Your task to perform on an android device: install app "Firefox Browser" Image 0: 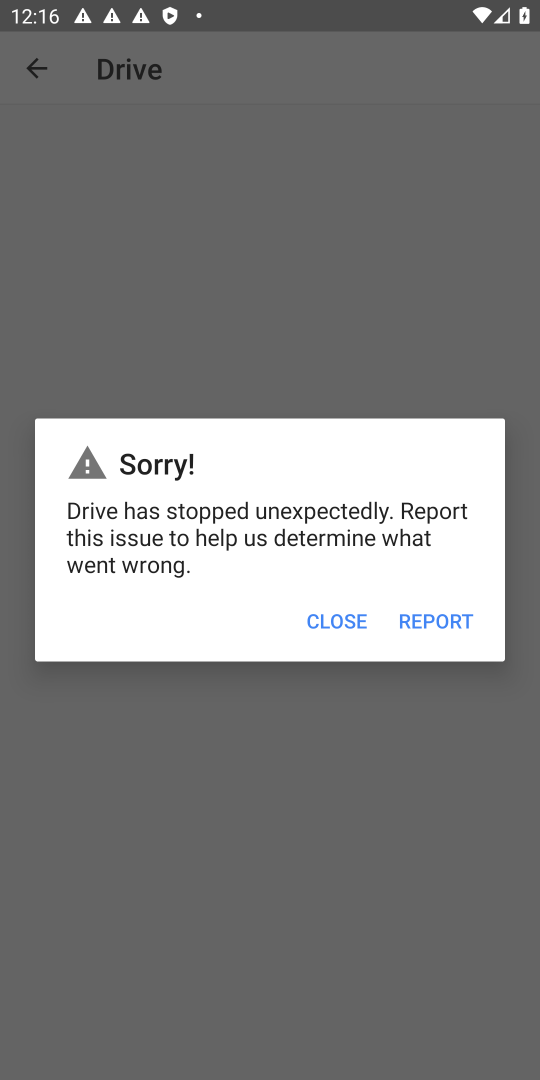
Step 0: click (325, 615)
Your task to perform on an android device: install app "Firefox Browser" Image 1: 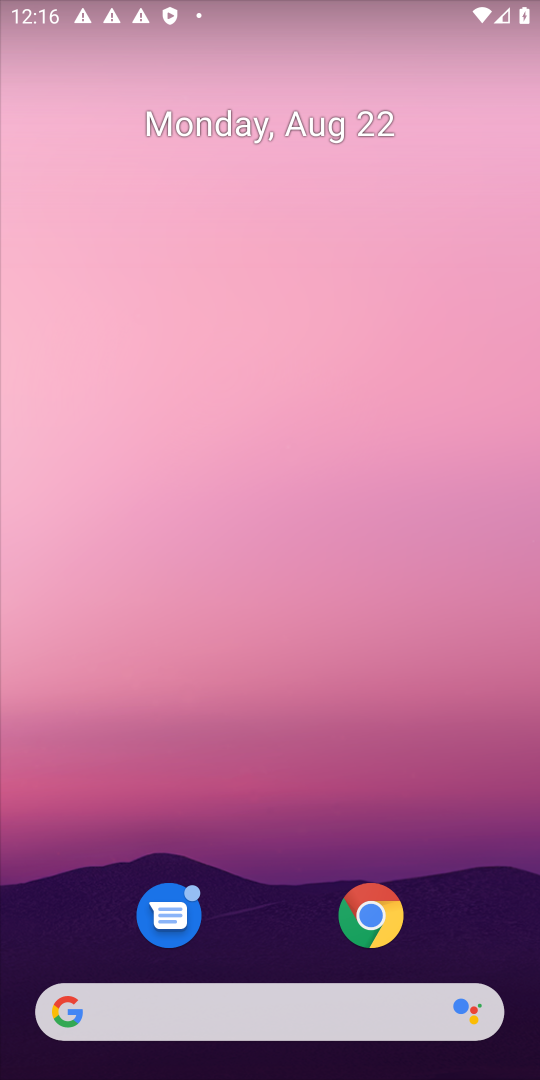
Step 1: drag from (319, 963) to (228, 3)
Your task to perform on an android device: install app "Firefox Browser" Image 2: 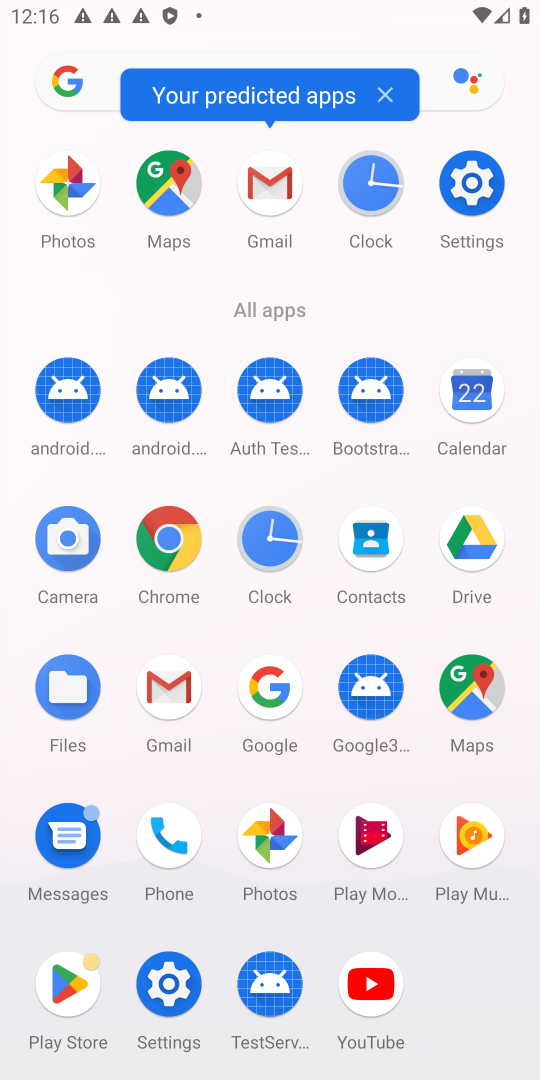
Step 2: click (65, 985)
Your task to perform on an android device: install app "Firefox Browser" Image 3: 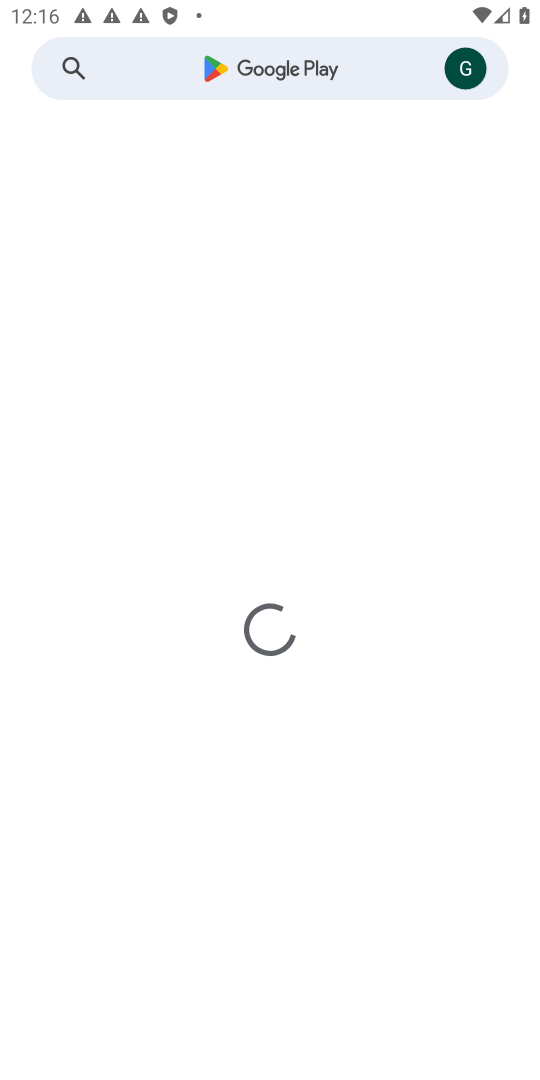
Step 3: click (210, 85)
Your task to perform on an android device: install app "Firefox Browser" Image 4: 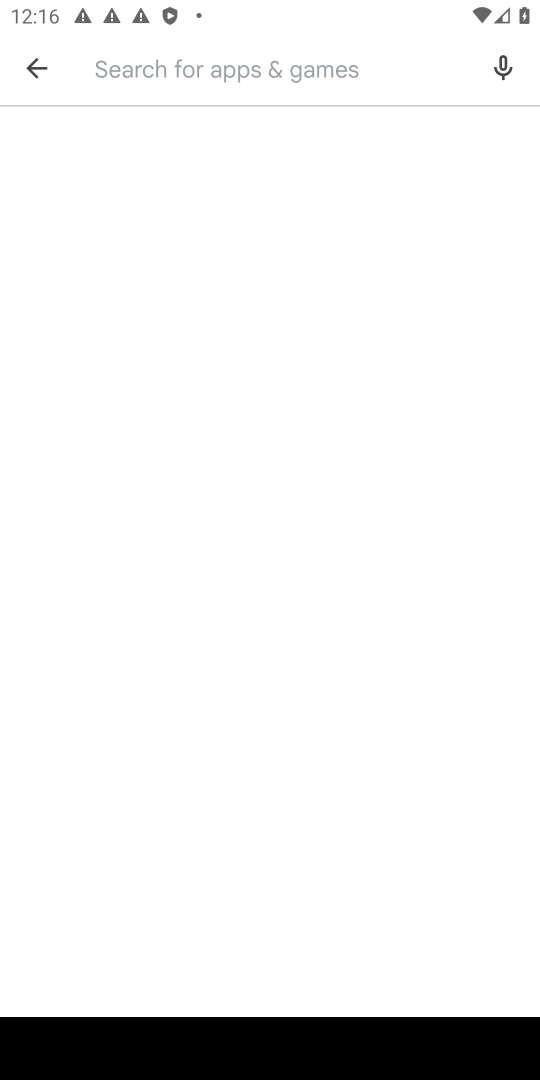
Step 4: type "Firefox Browser"
Your task to perform on an android device: install app "Firefox Browser" Image 5: 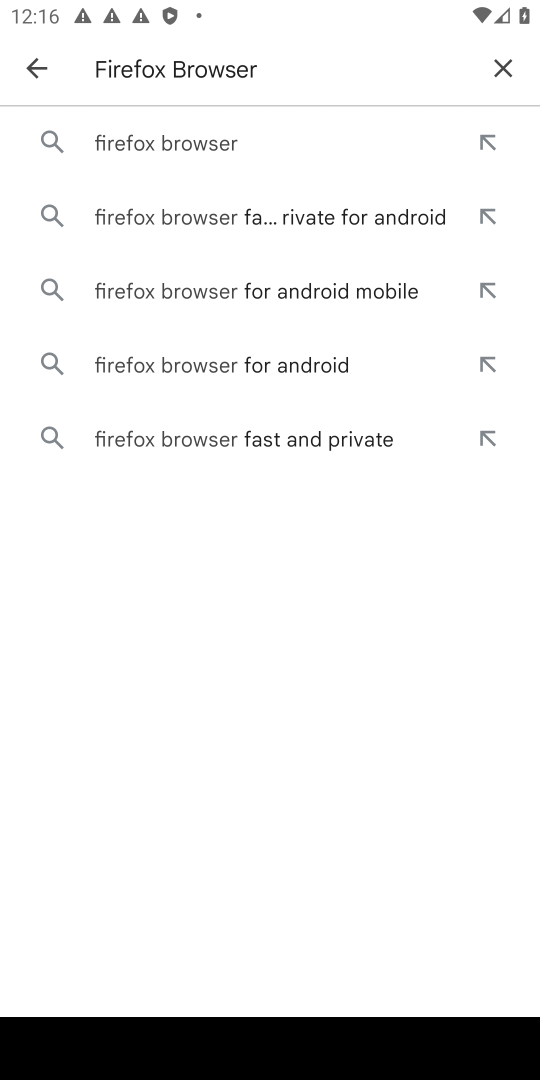
Step 5: click (192, 146)
Your task to perform on an android device: install app "Firefox Browser" Image 6: 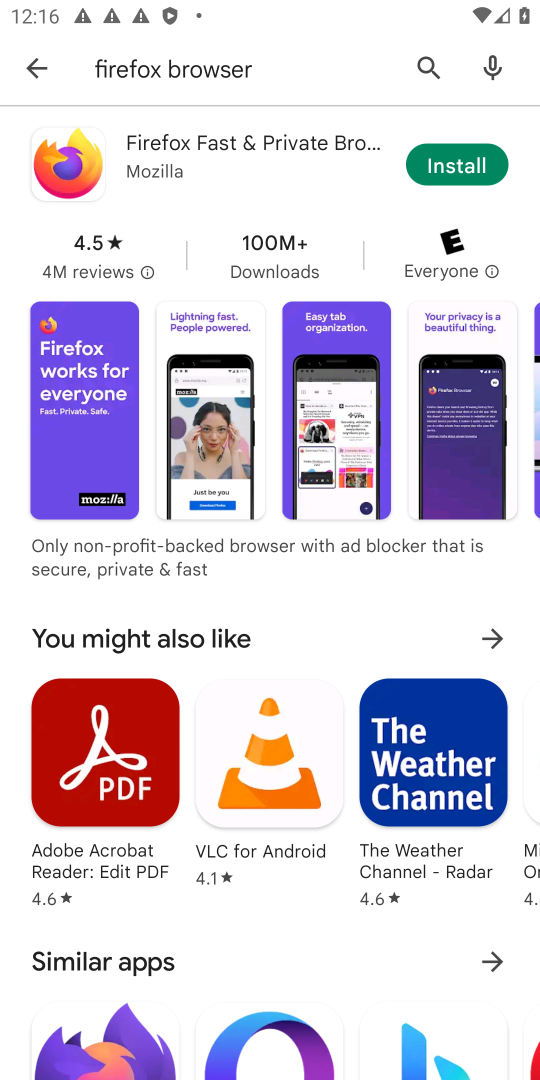
Step 6: click (416, 160)
Your task to perform on an android device: install app "Firefox Browser" Image 7: 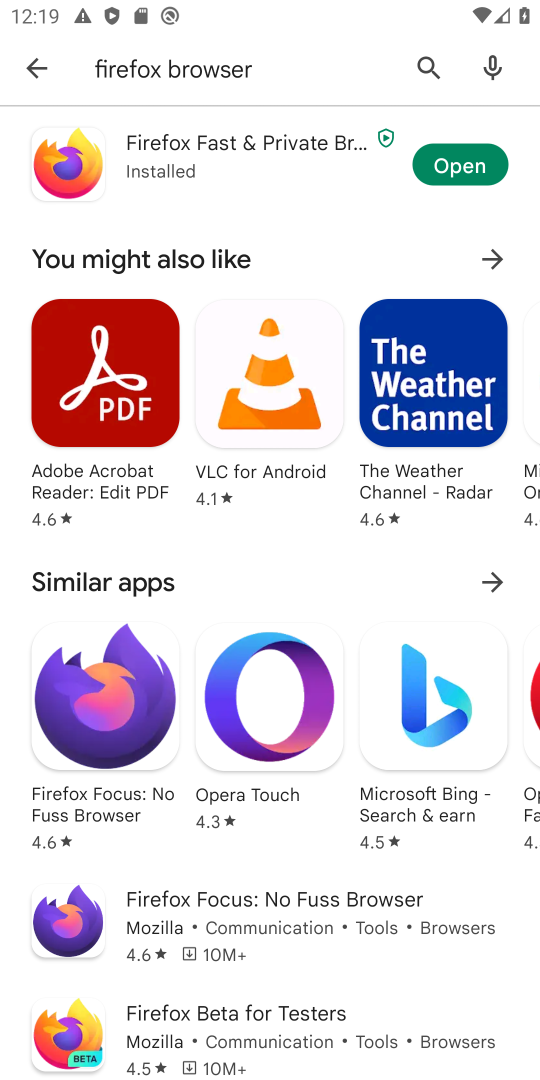
Step 7: task complete